Your task to perform on an android device: Go to privacy settings Image 0: 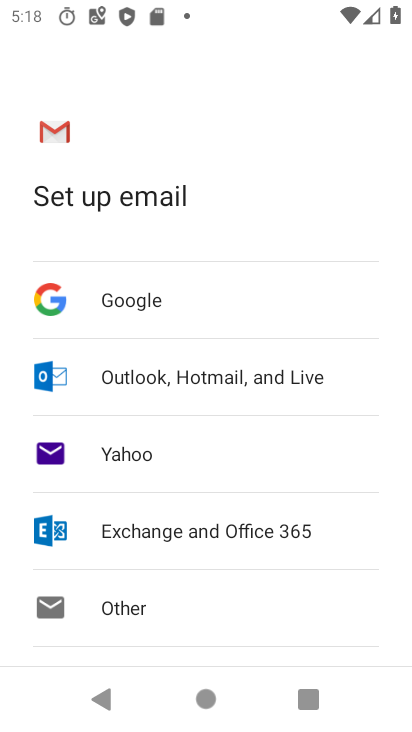
Step 0: press home button
Your task to perform on an android device: Go to privacy settings Image 1: 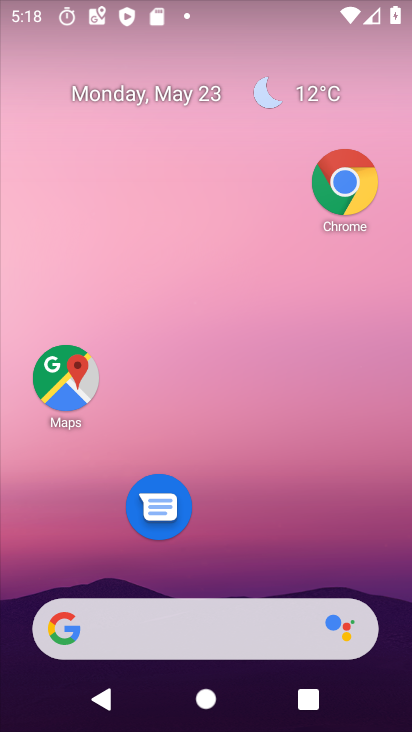
Step 1: drag from (214, 556) to (237, 11)
Your task to perform on an android device: Go to privacy settings Image 2: 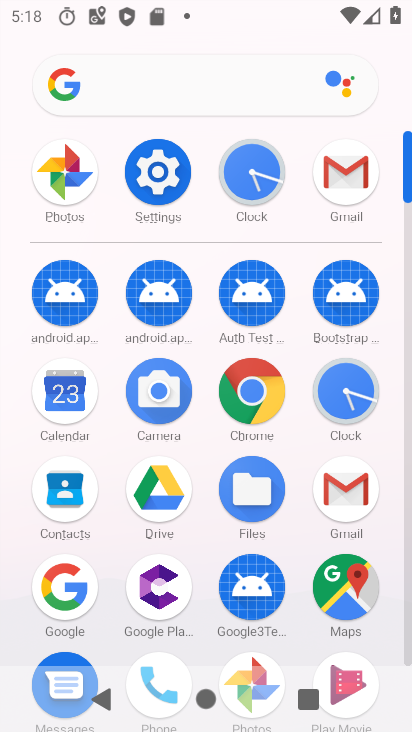
Step 2: click (144, 160)
Your task to perform on an android device: Go to privacy settings Image 3: 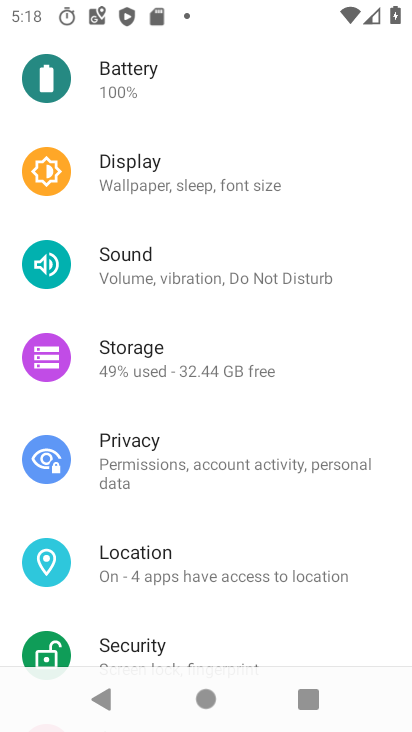
Step 3: click (151, 461)
Your task to perform on an android device: Go to privacy settings Image 4: 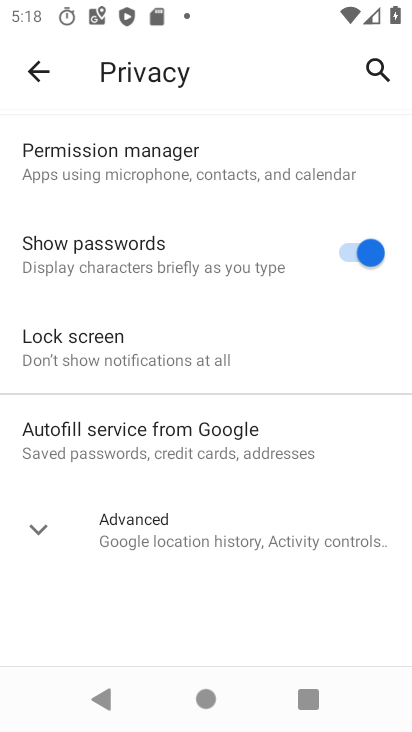
Step 4: task complete